Your task to perform on an android device: Open the web browser Image 0: 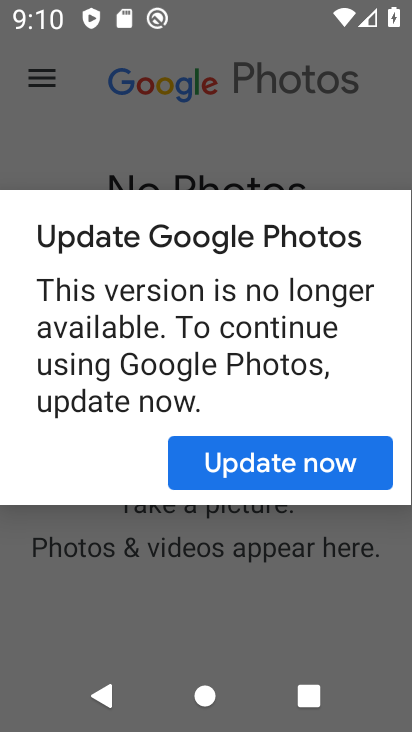
Step 0: press home button
Your task to perform on an android device: Open the web browser Image 1: 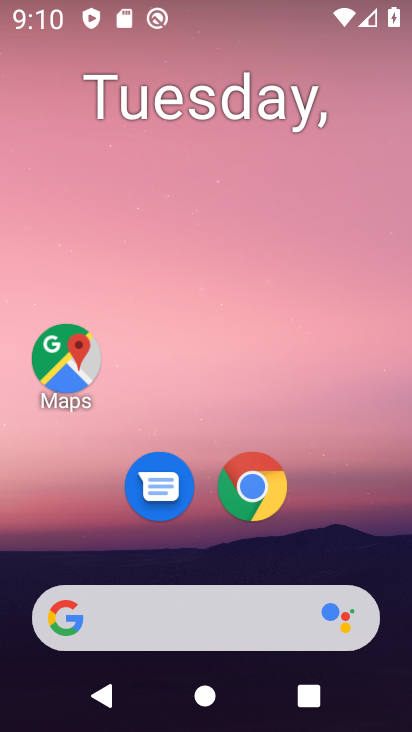
Step 1: drag from (373, 540) to (362, 217)
Your task to perform on an android device: Open the web browser Image 2: 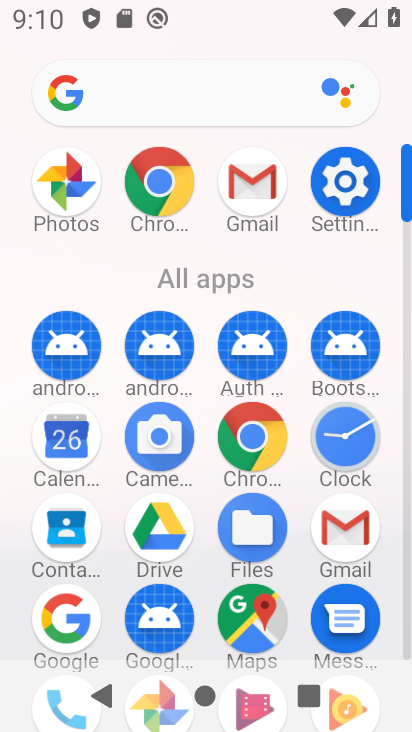
Step 2: click (260, 420)
Your task to perform on an android device: Open the web browser Image 3: 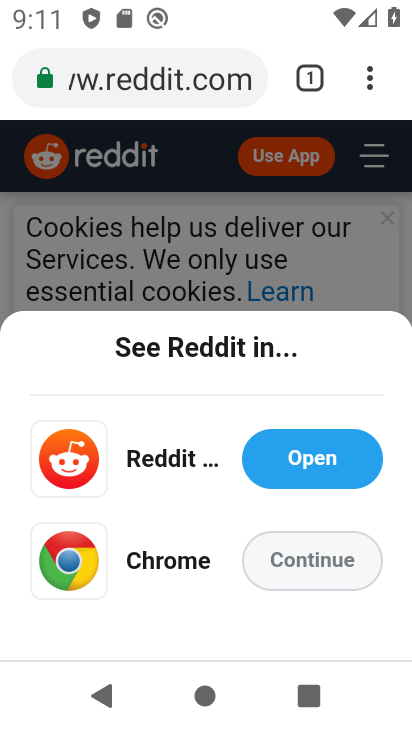
Step 3: task complete